Your task to perform on an android device: delete a single message in the gmail app Image 0: 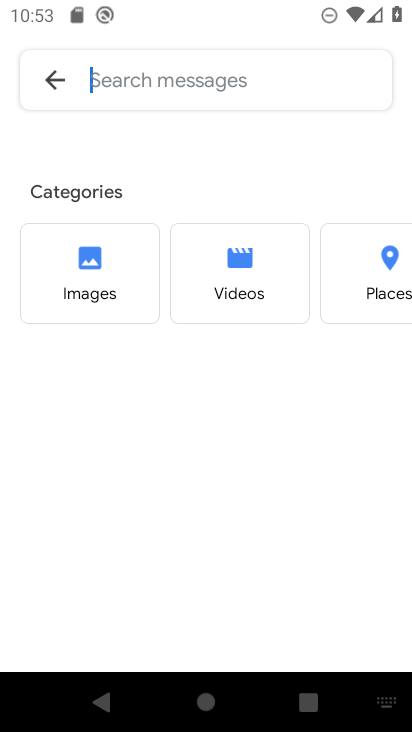
Step 0: press home button
Your task to perform on an android device: delete a single message in the gmail app Image 1: 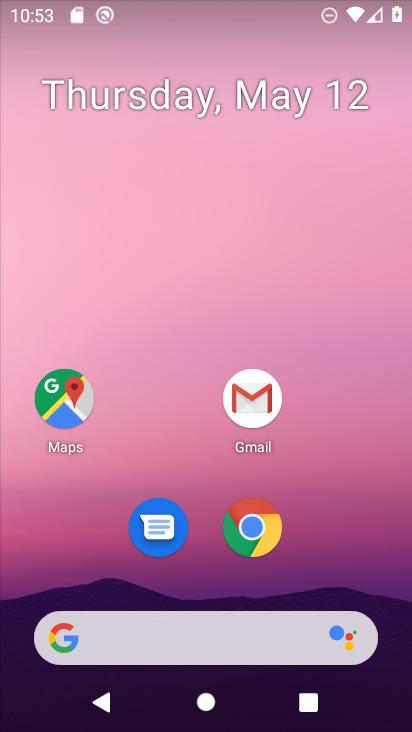
Step 1: drag from (353, 552) to (353, 497)
Your task to perform on an android device: delete a single message in the gmail app Image 2: 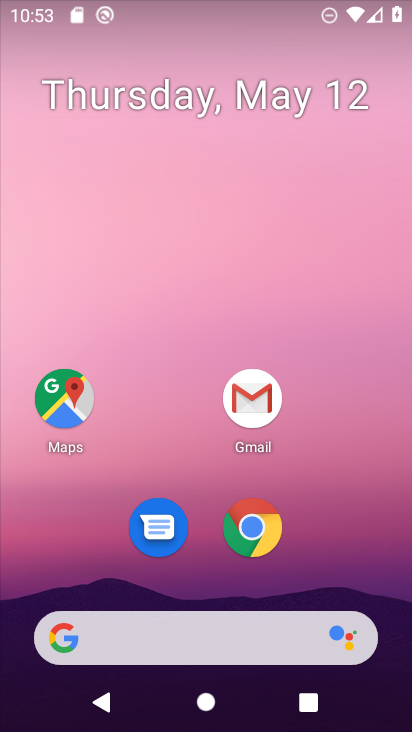
Step 2: click (270, 405)
Your task to perform on an android device: delete a single message in the gmail app Image 3: 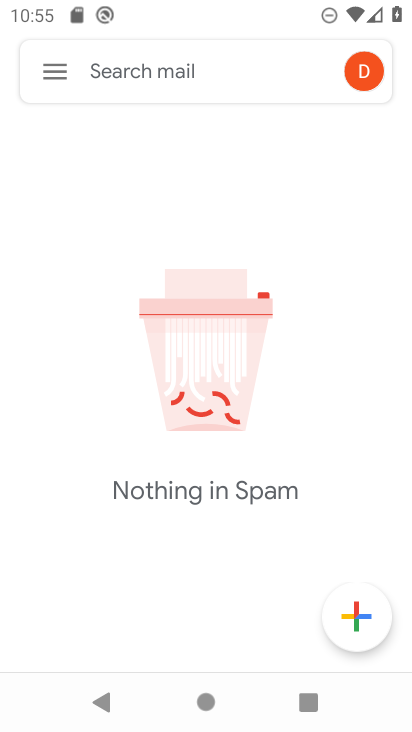
Step 3: click (63, 83)
Your task to perform on an android device: delete a single message in the gmail app Image 4: 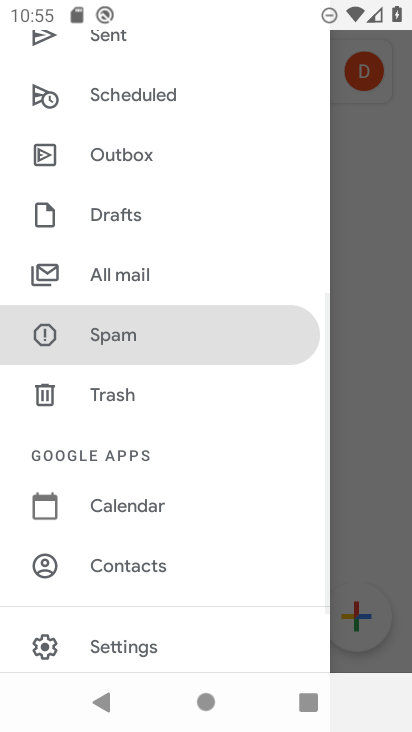
Step 4: click (153, 276)
Your task to perform on an android device: delete a single message in the gmail app Image 5: 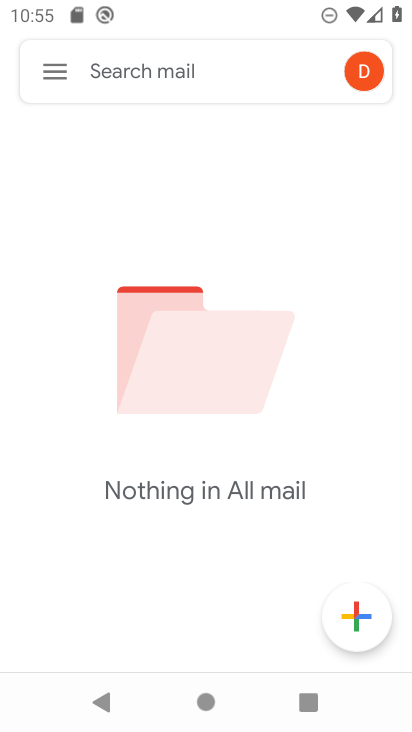
Step 5: task complete